Your task to perform on an android device: open app "DuckDuckGo Privacy Browser" Image 0: 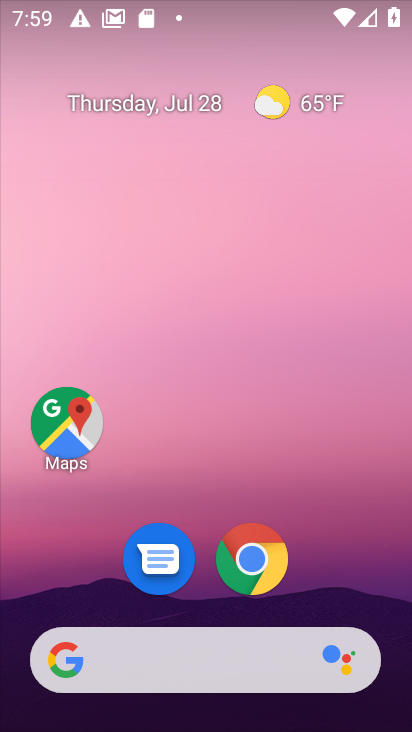
Step 0: drag from (218, 592) to (220, 244)
Your task to perform on an android device: open app "DuckDuckGo Privacy Browser" Image 1: 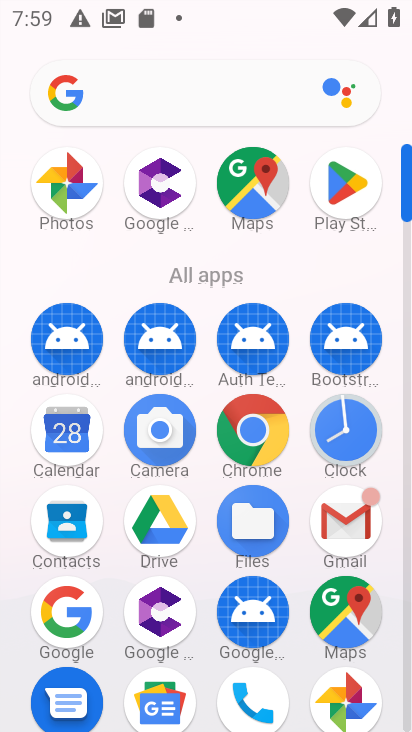
Step 1: click (330, 177)
Your task to perform on an android device: open app "DuckDuckGo Privacy Browser" Image 2: 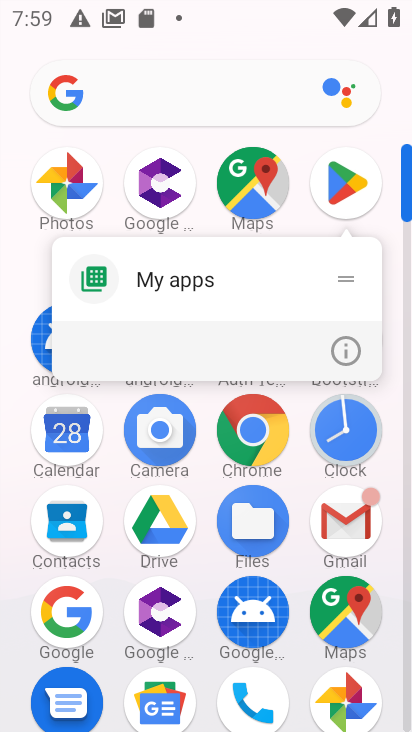
Step 2: click (352, 353)
Your task to perform on an android device: open app "DuckDuckGo Privacy Browser" Image 3: 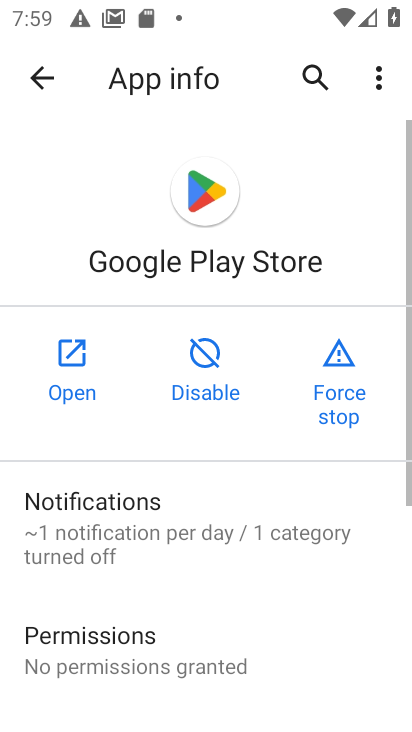
Step 3: click (78, 370)
Your task to perform on an android device: open app "DuckDuckGo Privacy Browser" Image 4: 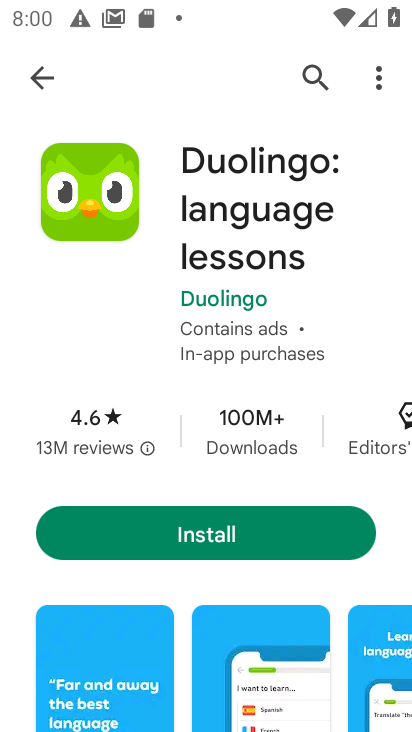
Step 4: click (310, 84)
Your task to perform on an android device: open app "DuckDuckGo Privacy Browser" Image 5: 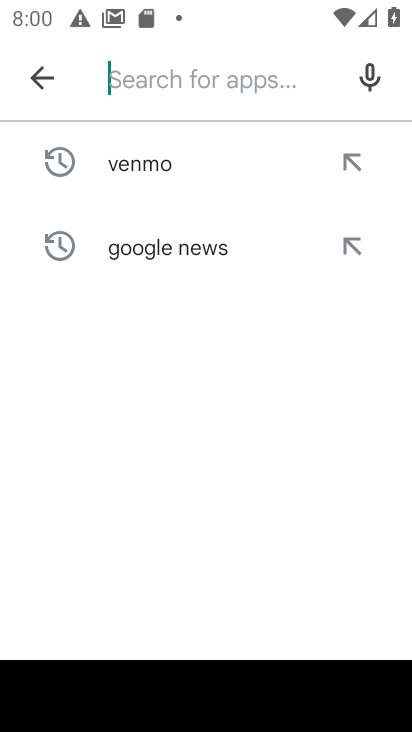
Step 5: type "DuckDuckGo Privacy Browser"
Your task to perform on an android device: open app "DuckDuckGo Privacy Browser" Image 6: 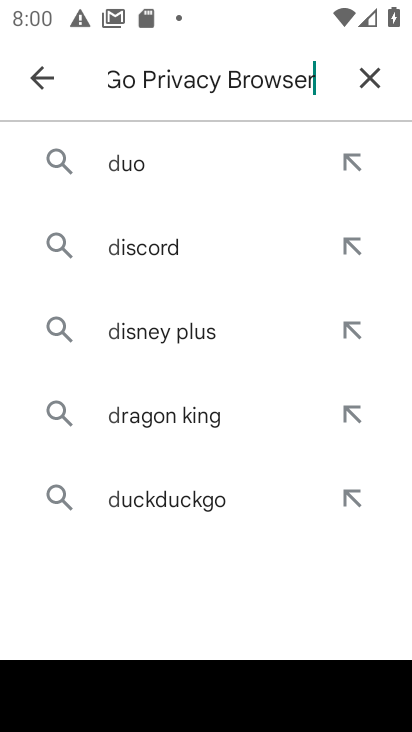
Step 6: type ""
Your task to perform on an android device: open app "DuckDuckGo Privacy Browser" Image 7: 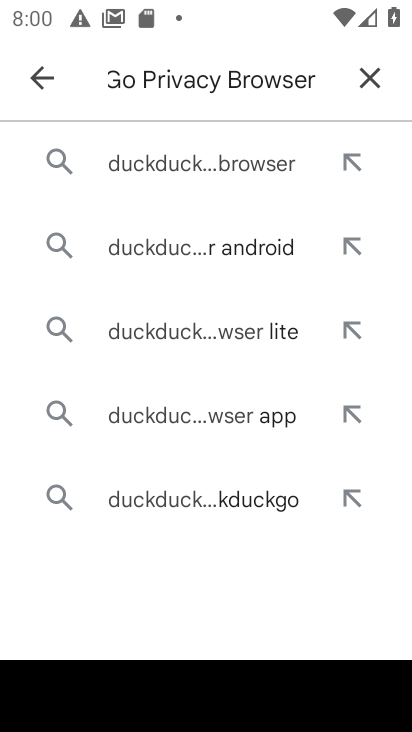
Step 7: click (247, 173)
Your task to perform on an android device: open app "DuckDuckGo Privacy Browser" Image 8: 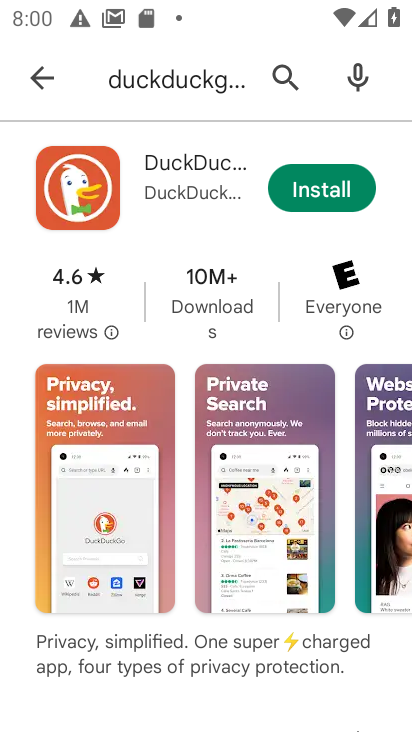
Step 8: click (190, 177)
Your task to perform on an android device: open app "DuckDuckGo Privacy Browser" Image 9: 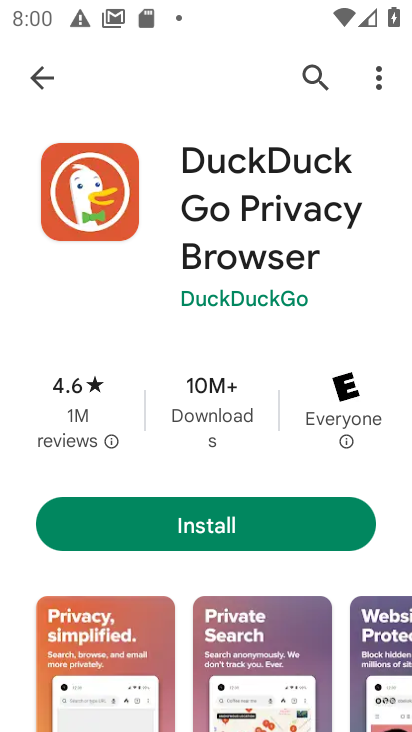
Step 9: task complete